Your task to perform on an android device: turn off location Image 0: 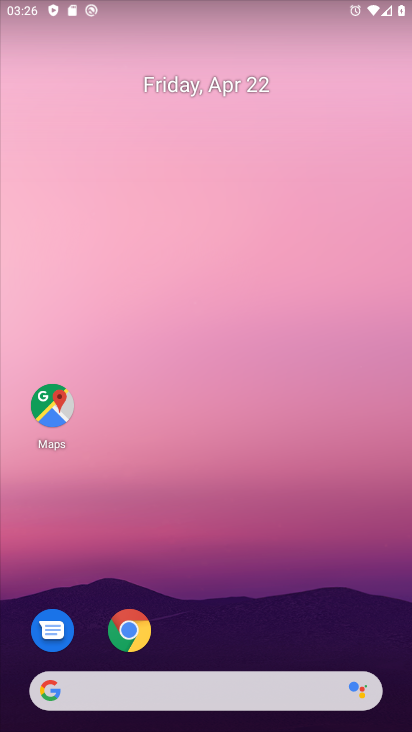
Step 0: drag from (198, 643) to (222, 178)
Your task to perform on an android device: turn off location Image 1: 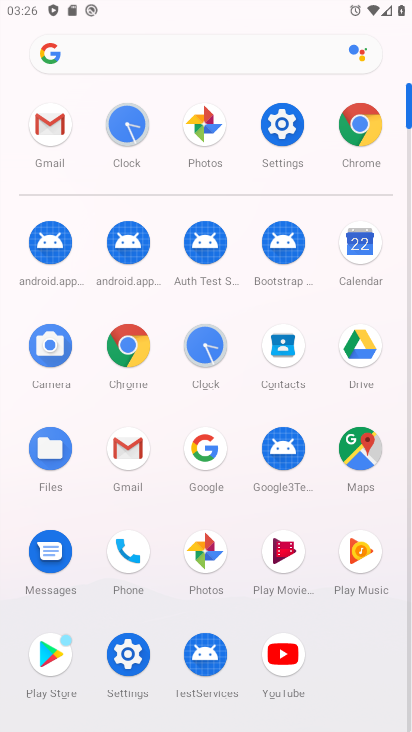
Step 1: click (120, 660)
Your task to perform on an android device: turn off location Image 2: 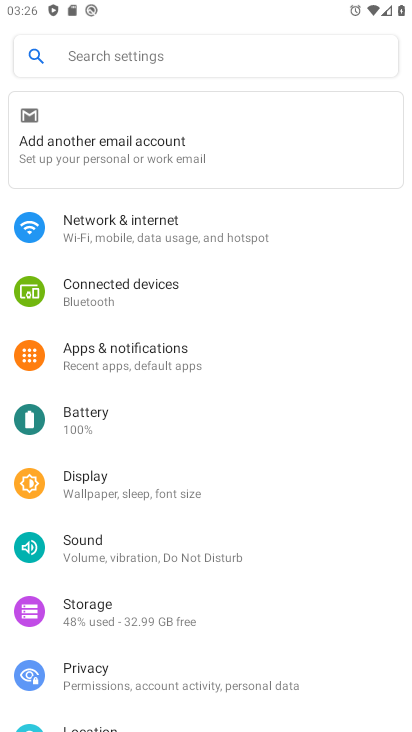
Step 2: drag from (94, 689) to (194, 333)
Your task to perform on an android device: turn off location Image 3: 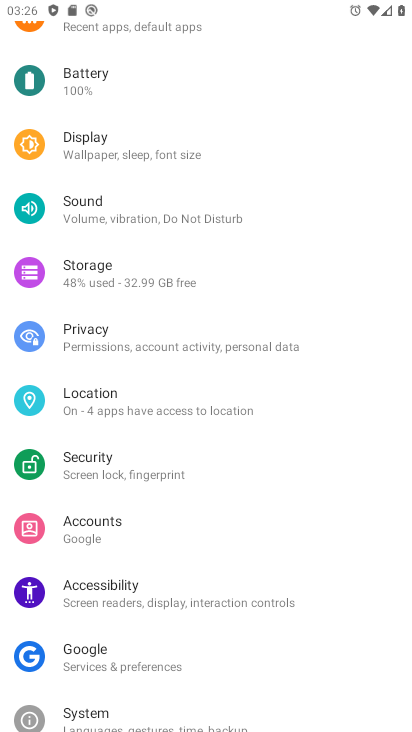
Step 3: click (113, 409)
Your task to perform on an android device: turn off location Image 4: 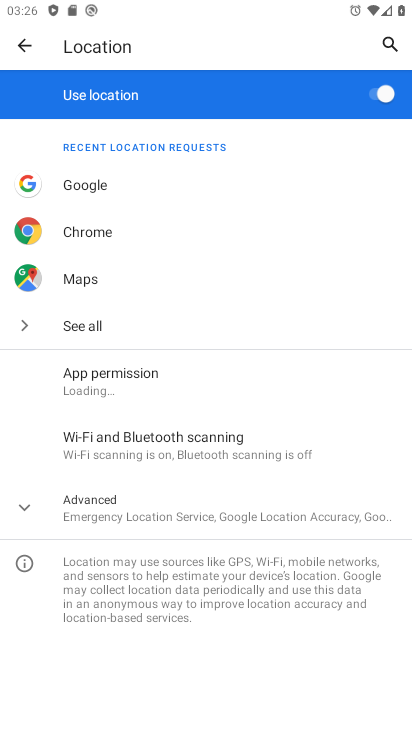
Step 4: click (369, 88)
Your task to perform on an android device: turn off location Image 5: 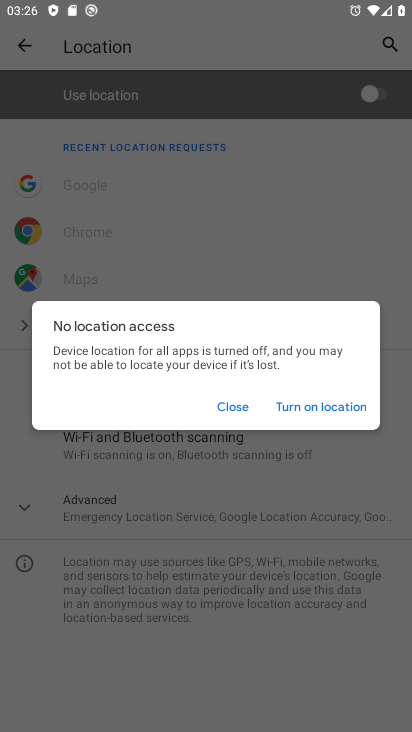
Step 5: click (229, 406)
Your task to perform on an android device: turn off location Image 6: 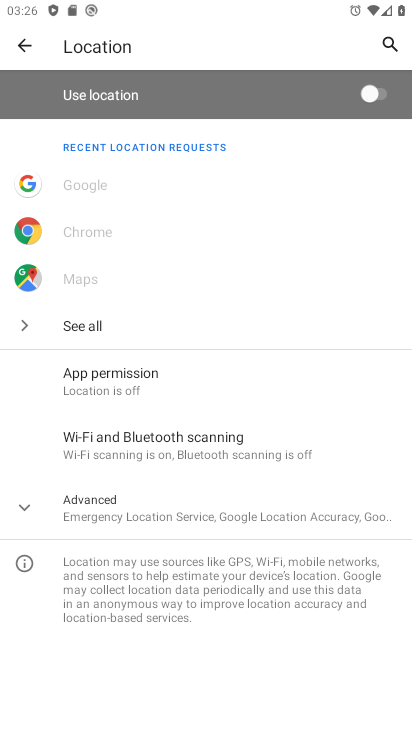
Step 6: task complete